Your task to perform on an android device: toggle show notifications on the lock screen Image 0: 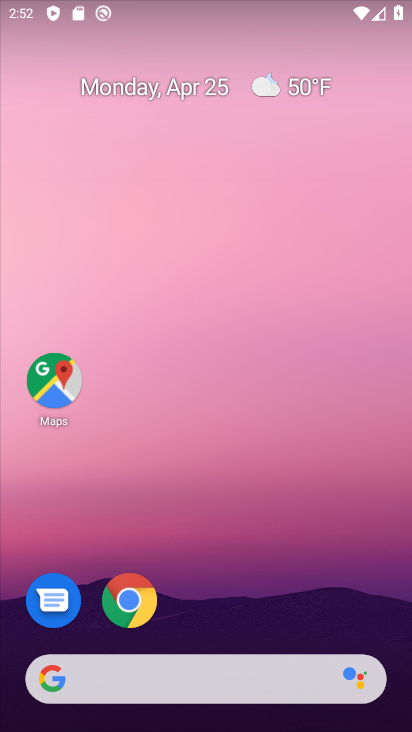
Step 0: drag from (362, 602) to (374, 207)
Your task to perform on an android device: toggle show notifications on the lock screen Image 1: 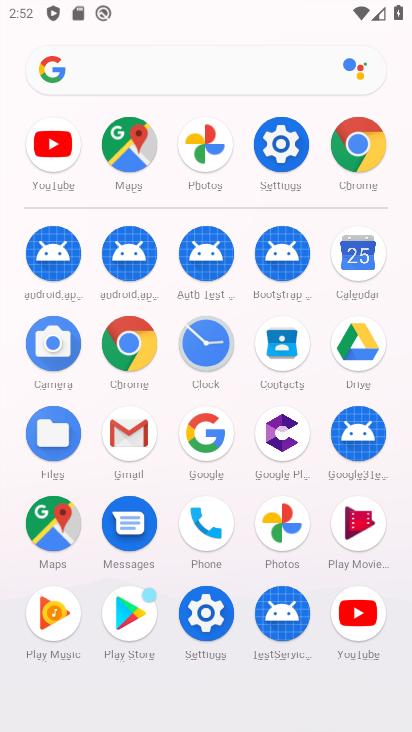
Step 1: click (203, 608)
Your task to perform on an android device: toggle show notifications on the lock screen Image 2: 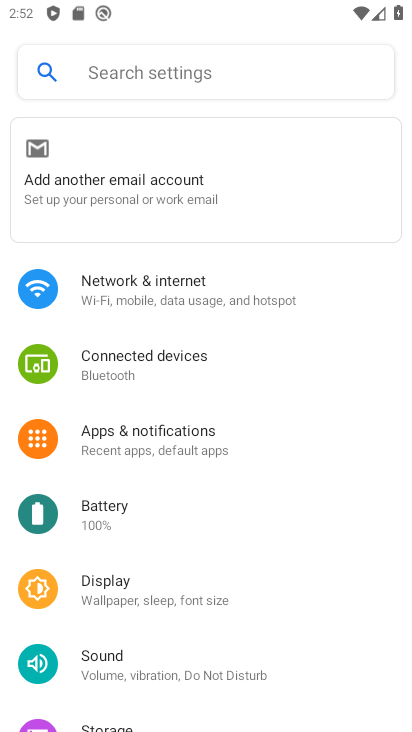
Step 2: click (178, 446)
Your task to perform on an android device: toggle show notifications on the lock screen Image 3: 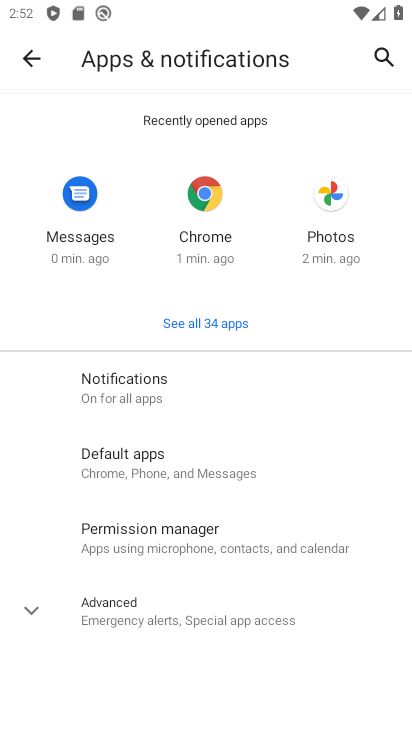
Step 3: click (157, 389)
Your task to perform on an android device: toggle show notifications on the lock screen Image 4: 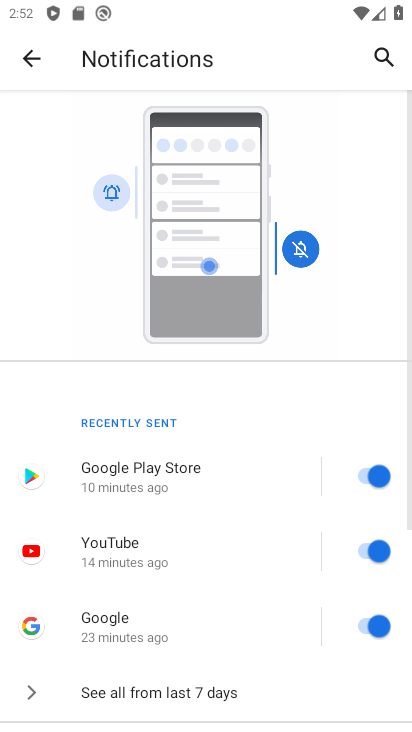
Step 4: drag from (250, 620) to (336, 181)
Your task to perform on an android device: toggle show notifications on the lock screen Image 5: 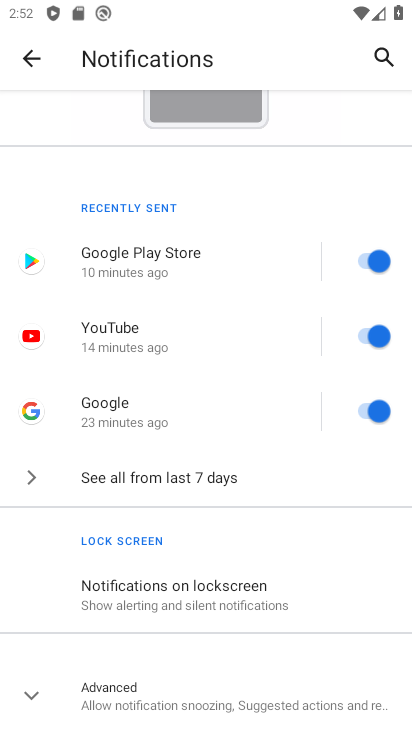
Step 5: click (229, 574)
Your task to perform on an android device: toggle show notifications on the lock screen Image 6: 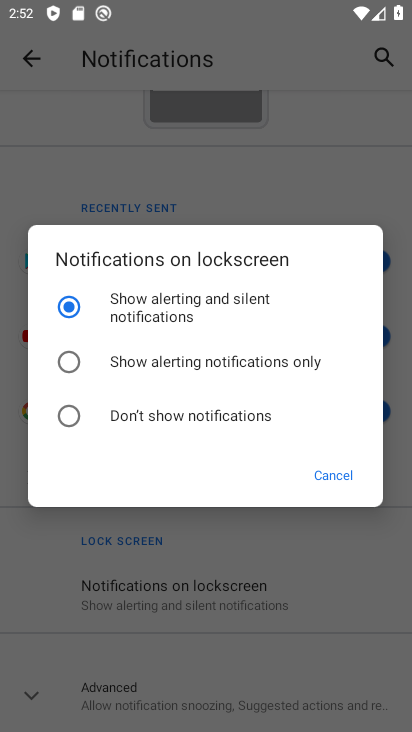
Step 6: click (68, 423)
Your task to perform on an android device: toggle show notifications on the lock screen Image 7: 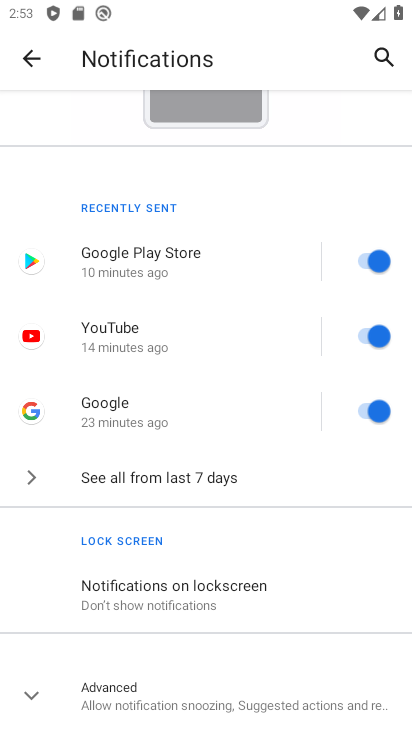
Step 7: task complete